Your task to perform on an android device: turn off improve location accuracy Image 0: 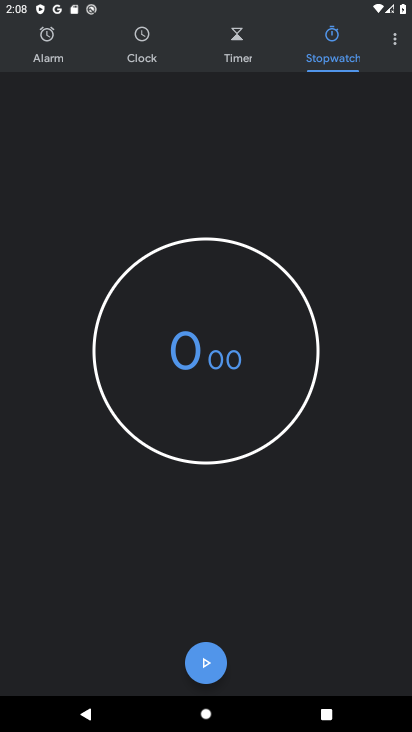
Step 0: drag from (243, 11) to (145, 634)
Your task to perform on an android device: turn off improve location accuracy Image 1: 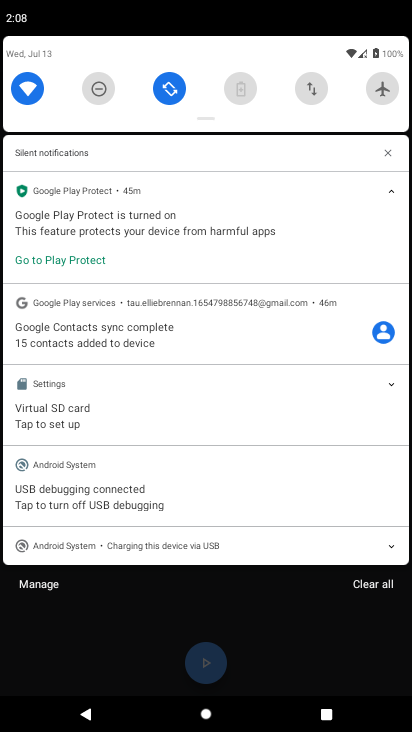
Step 1: drag from (254, 73) to (265, 694)
Your task to perform on an android device: turn off improve location accuracy Image 2: 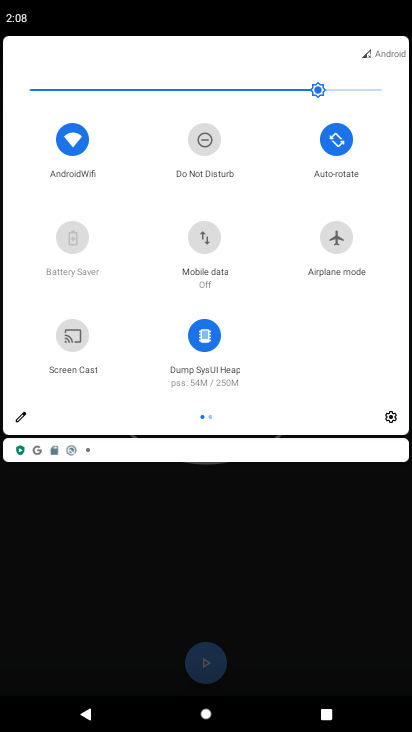
Step 2: click (396, 419)
Your task to perform on an android device: turn off improve location accuracy Image 3: 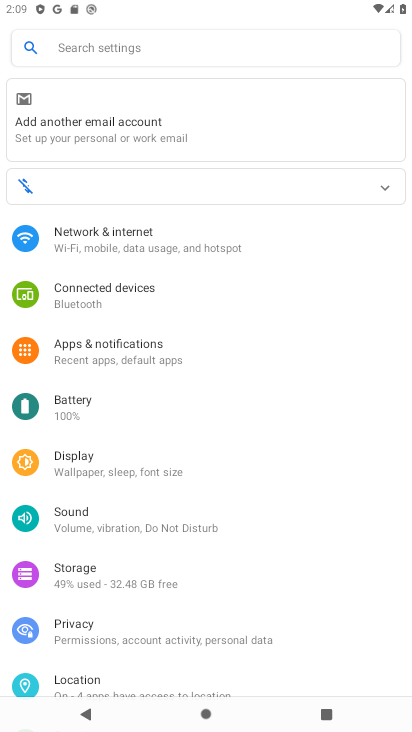
Step 3: click (57, 674)
Your task to perform on an android device: turn off improve location accuracy Image 4: 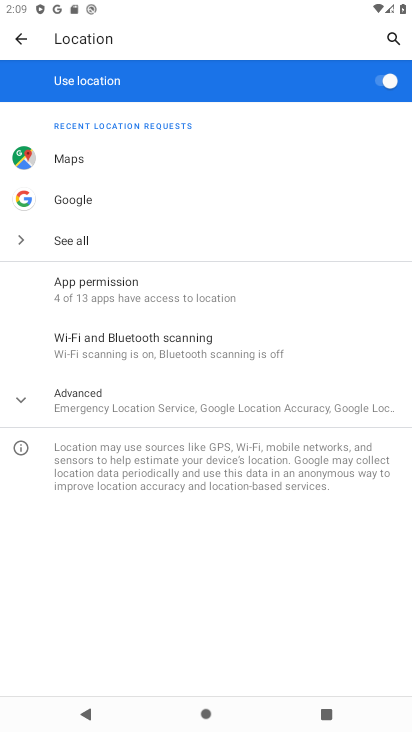
Step 4: click (71, 417)
Your task to perform on an android device: turn off improve location accuracy Image 5: 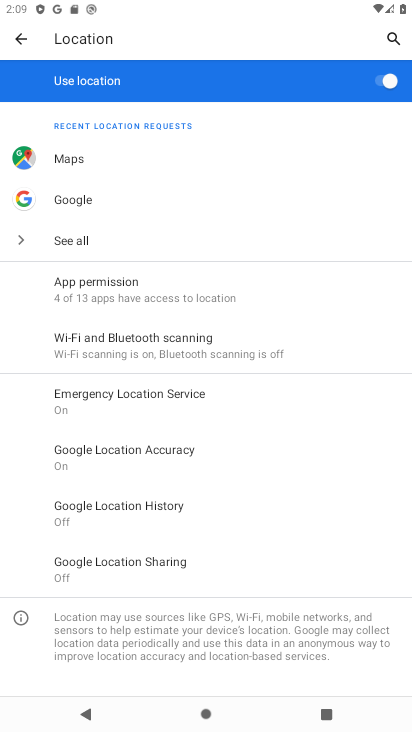
Step 5: click (179, 460)
Your task to perform on an android device: turn off improve location accuracy Image 6: 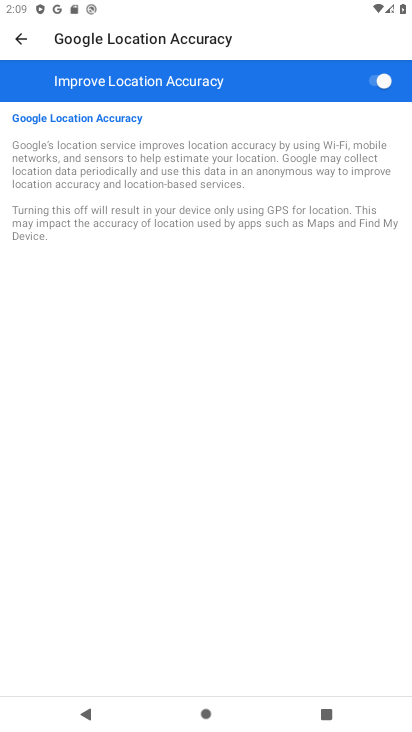
Step 6: click (385, 74)
Your task to perform on an android device: turn off improve location accuracy Image 7: 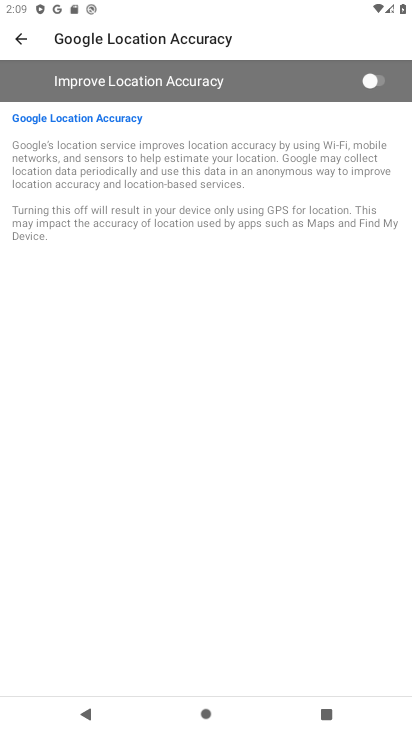
Step 7: task complete